Your task to perform on an android device: Open maps Image 0: 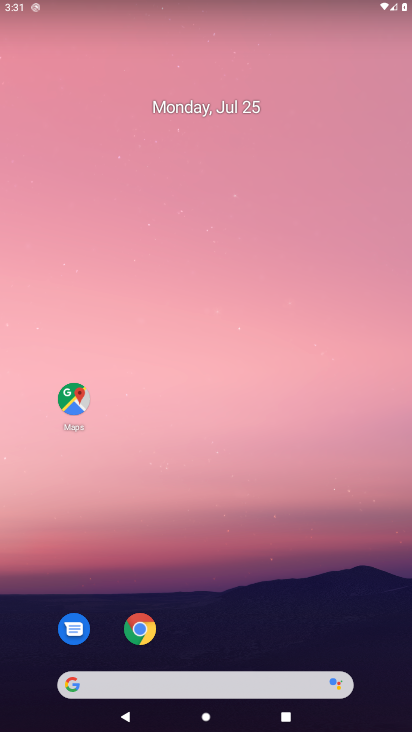
Step 0: click (47, 388)
Your task to perform on an android device: Open maps Image 1: 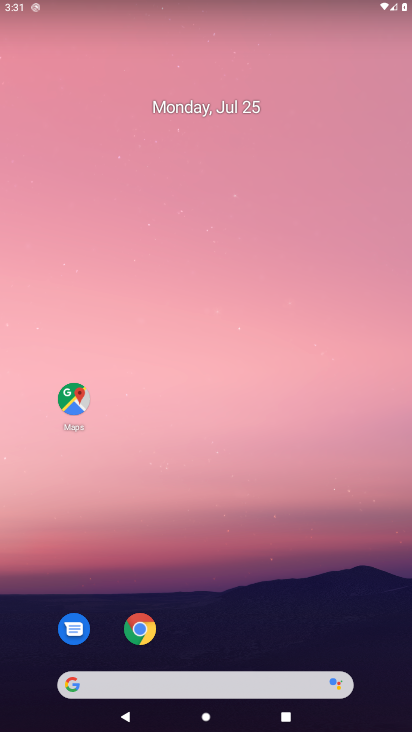
Step 1: click (67, 397)
Your task to perform on an android device: Open maps Image 2: 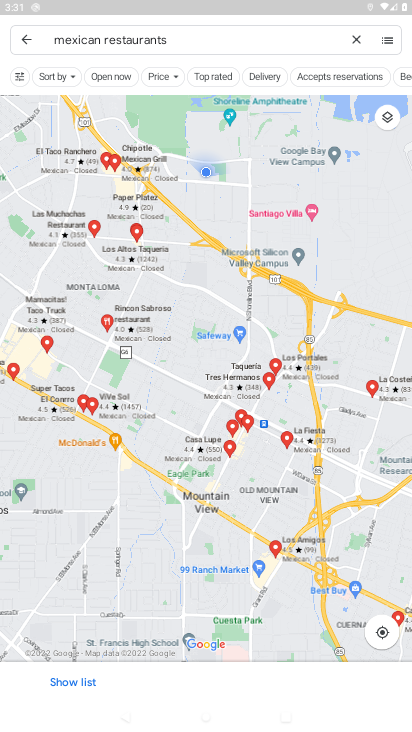
Step 2: click (353, 42)
Your task to perform on an android device: Open maps Image 3: 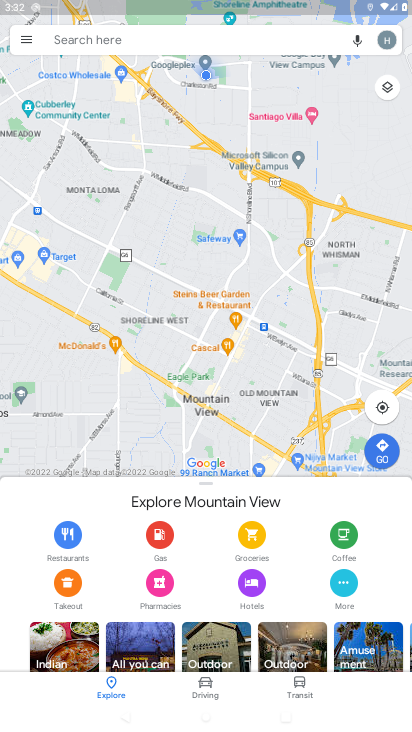
Step 3: task complete